Your task to perform on an android device: Open settings Image 0: 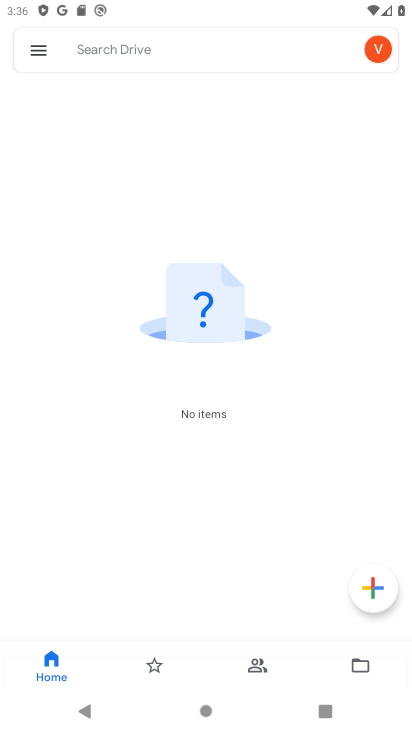
Step 0: press home button
Your task to perform on an android device: Open settings Image 1: 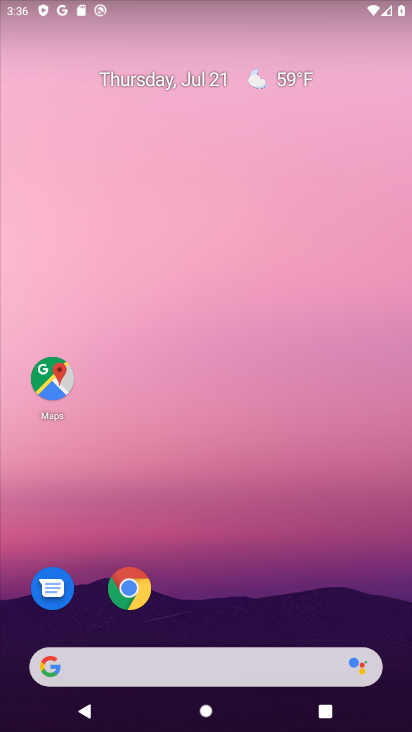
Step 1: drag from (253, 721) to (253, 82)
Your task to perform on an android device: Open settings Image 2: 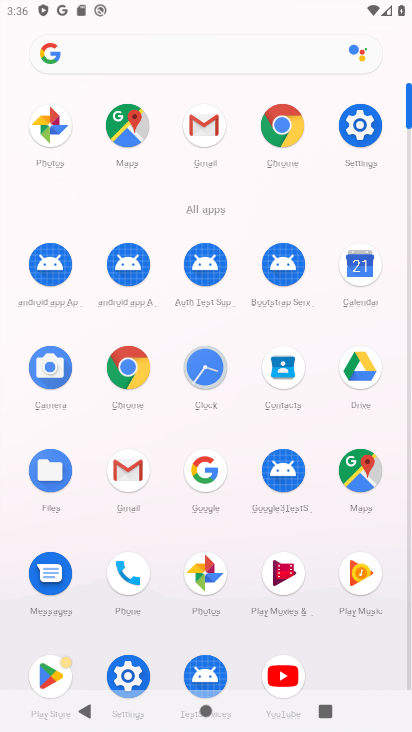
Step 2: click (356, 131)
Your task to perform on an android device: Open settings Image 3: 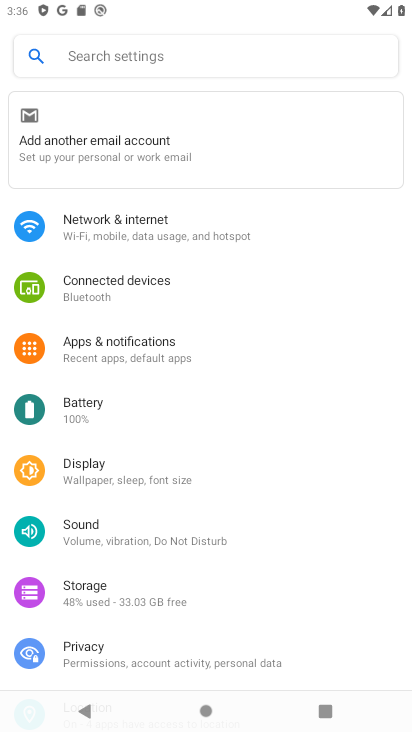
Step 3: task complete